Your task to perform on an android device: Go to ESPN.com Image 0: 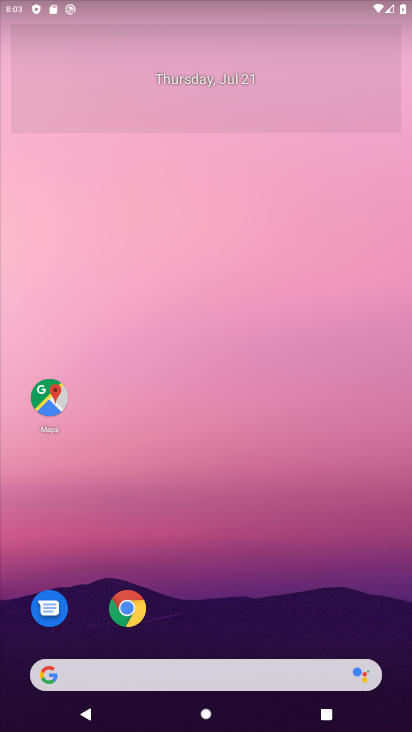
Step 0: press home button
Your task to perform on an android device: Go to ESPN.com Image 1: 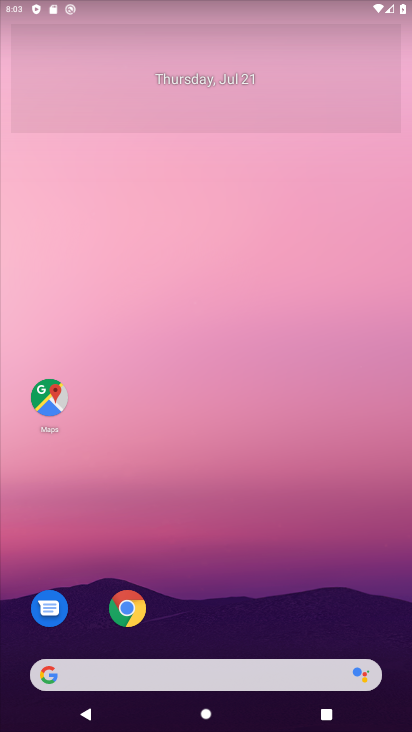
Step 1: click (124, 601)
Your task to perform on an android device: Go to ESPN.com Image 2: 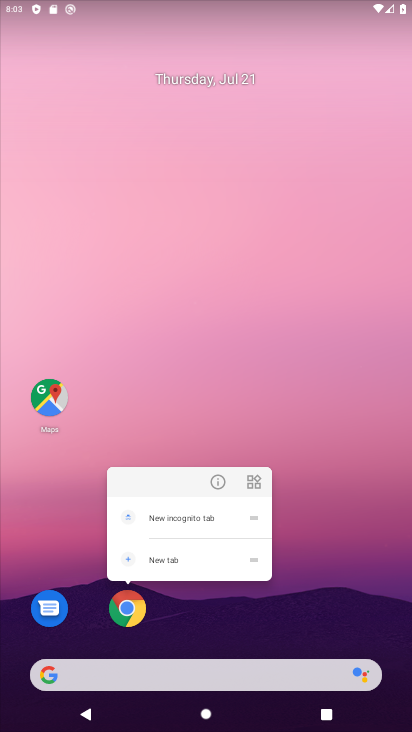
Step 2: click (124, 602)
Your task to perform on an android device: Go to ESPN.com Image 3: 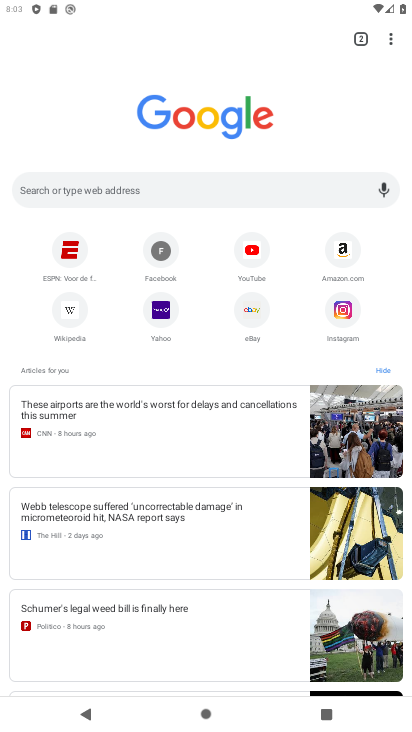
Step 3: click (66, 247)
Your task to perform on an android device: Go to ESPN.com Image 4: 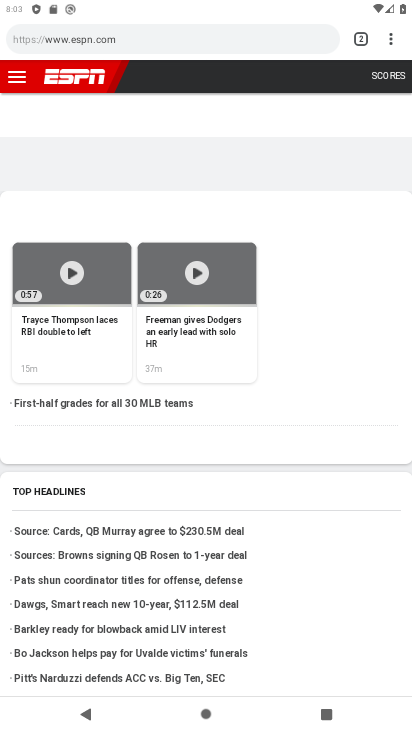
Step 4: task complete